Your task to perform on an android device: see creations saved in the google photos Image 0: 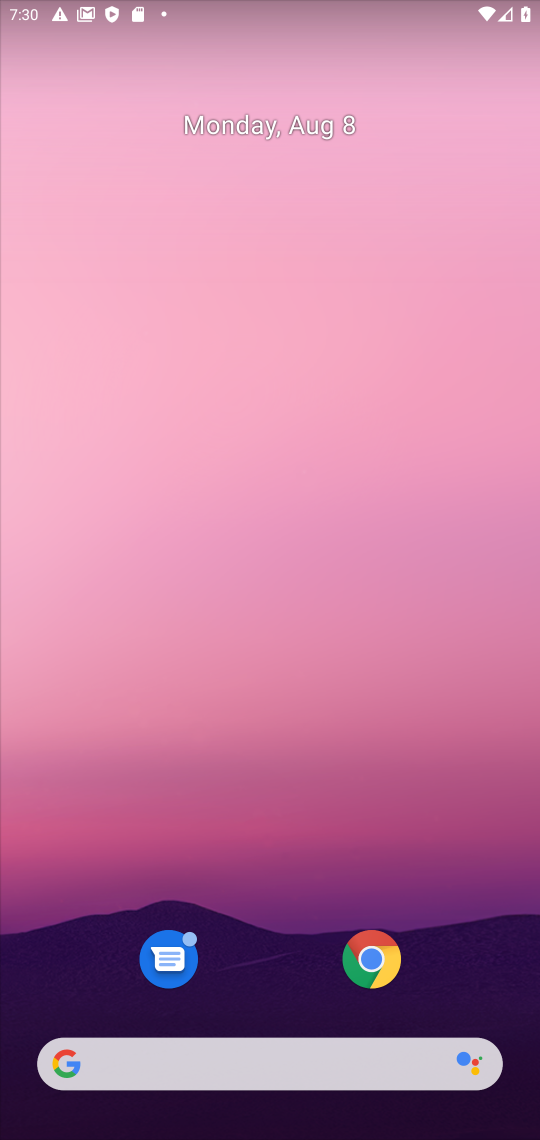
Step 0: drag from (493, 985) to (141, 18)
Your task to perform on an android device: see creations saved in the google photos Image 1: 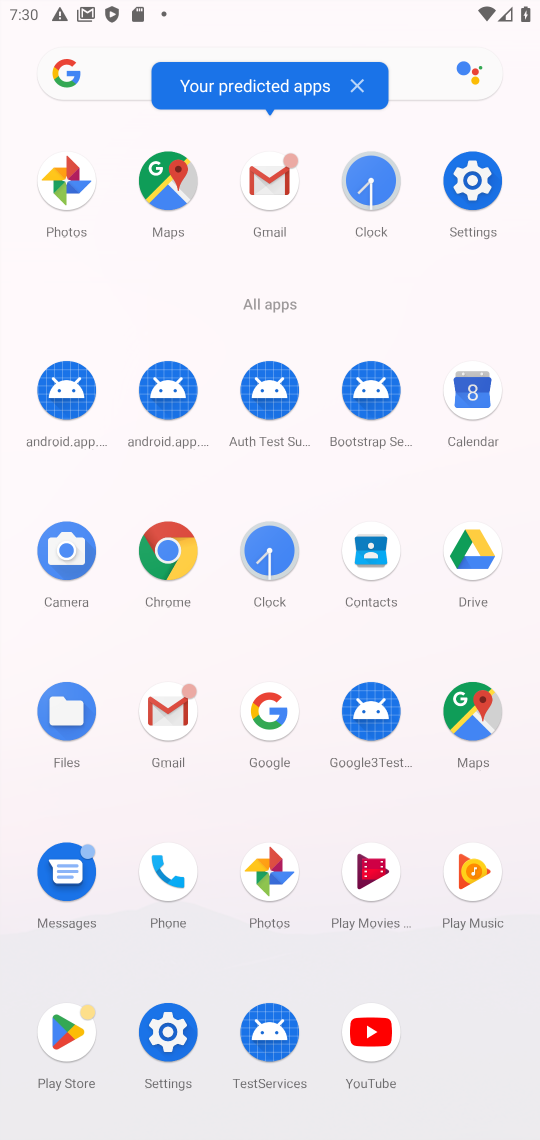
Step 1: click (275, 886)
Your task to perform on an android device: see creations saved in the google photos Image 2: 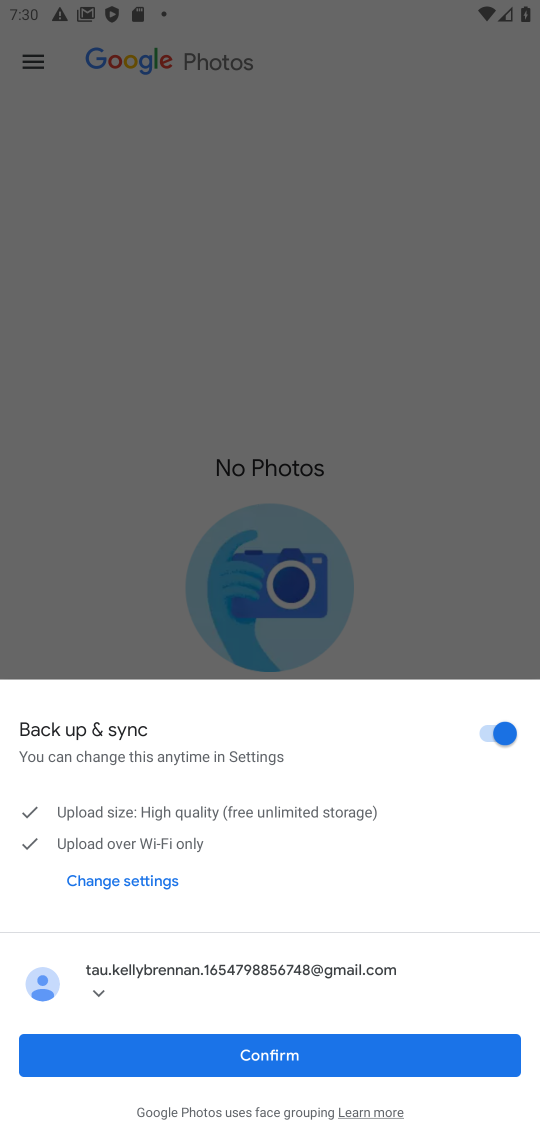
Step 2: click (276, 1052)
Your task to perform on an android device: see creations saved in the google photos Image 3: 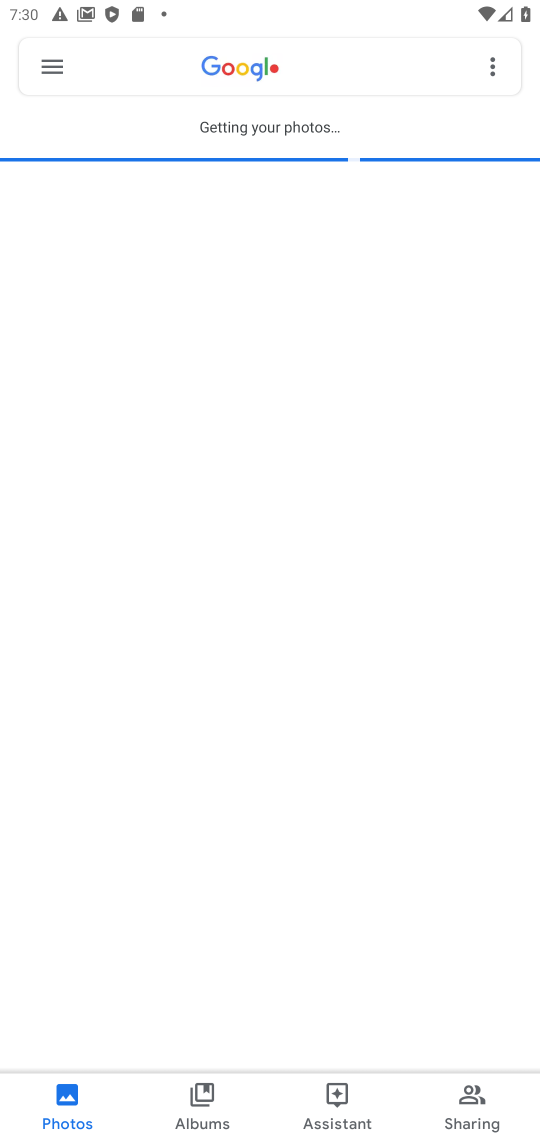
Step 3: click (43, 75)
Your task to perform on an android device: see creations saved in the google photos Image 4: 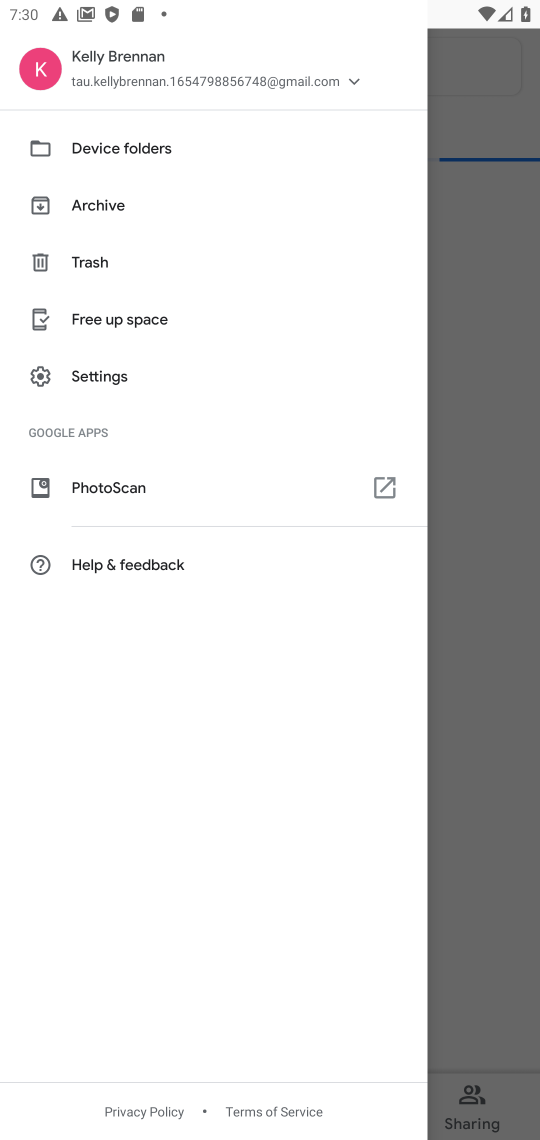
Step 4: click (486, 734)
Your task to perform on an android device: see creations saved in the google photos Image 5: 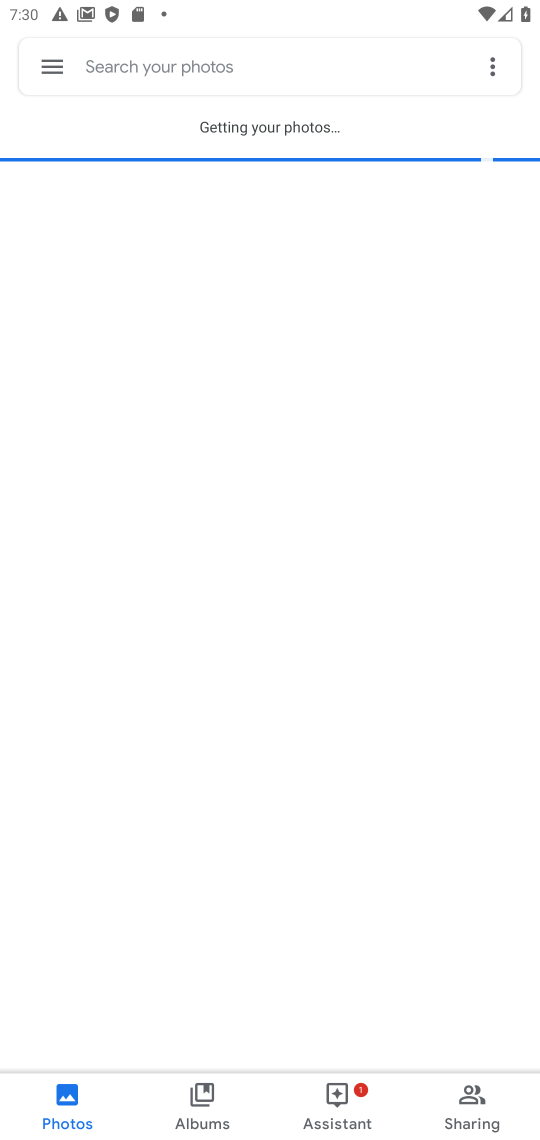
Step 5: click (109, 71)
Your task to perform on an android device: see creations saved in the google photos Image 6: 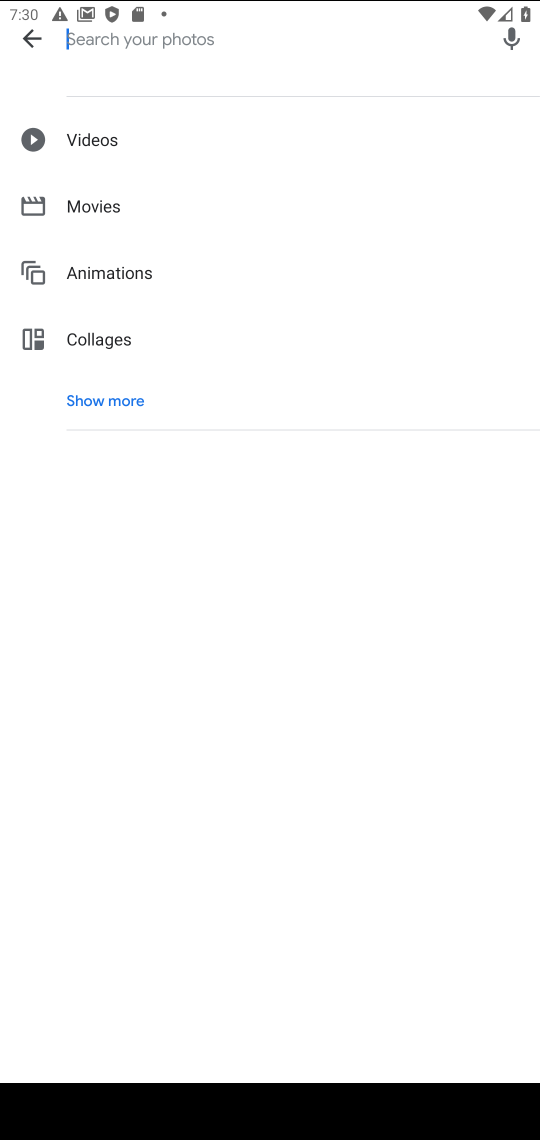
Step 6: click (115, 407)
Your task to perform on an android device: see creations saved in the google photos Image 7: 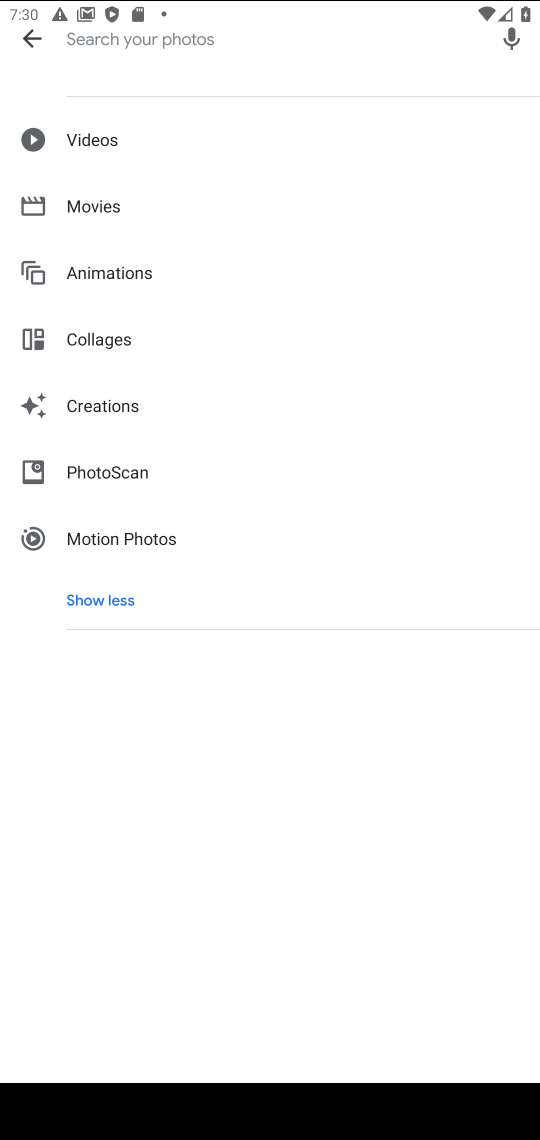
Step 7: click (115, 407)
Your task to perform on an android device: see creations saved in the google photos Image 8: 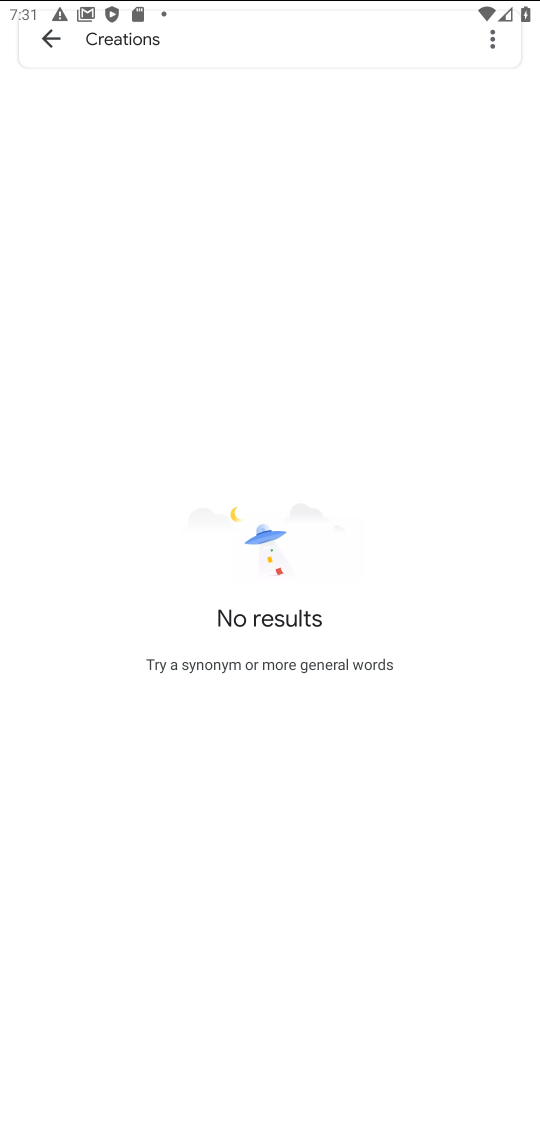
Step 8: task complete